Your task to perform on an android device: Open Google Maps Image 0: 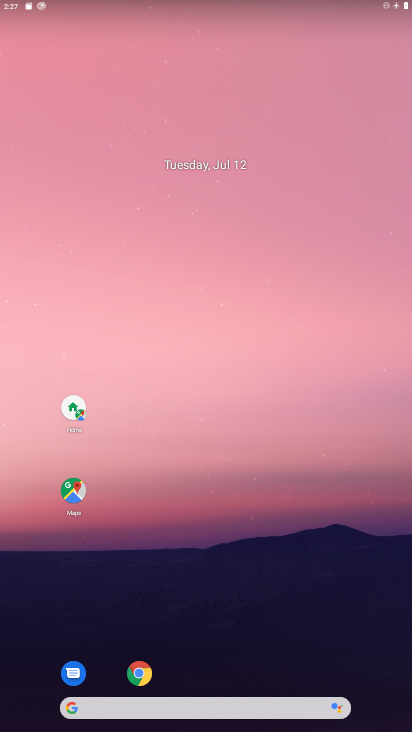
Step 0: click (60, 498)
Your task to perform on an android device: Open Google Maps Image 1: 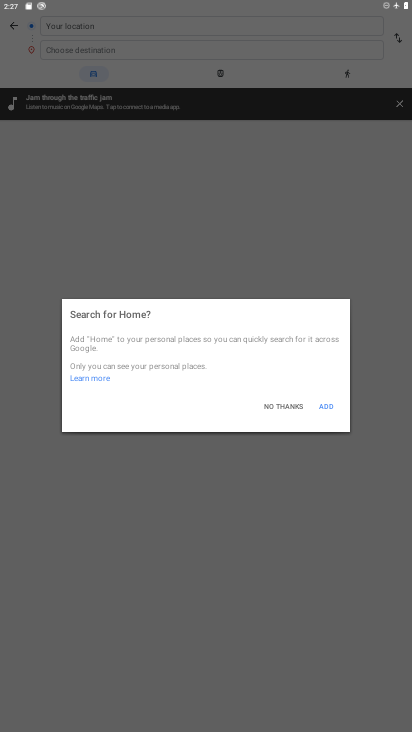
Step 1: press home button
Your task to perform on an android device: Open Google Maps Image 2: 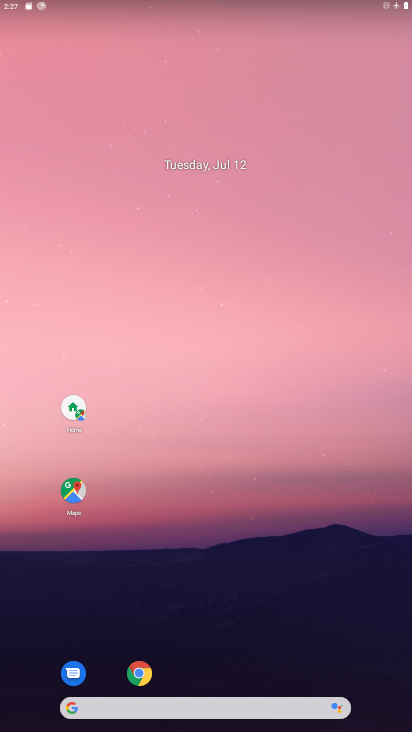
Step 2: drag from (235, 602) to (235, 233)
Your task to perform on an android device: Open Google Maps Image 3: 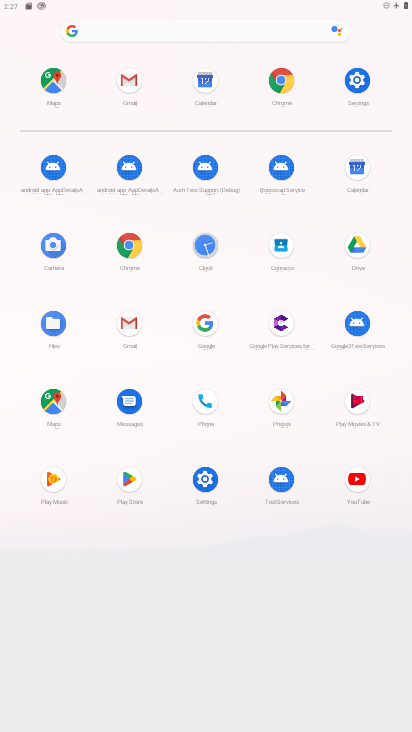
Step 3: click (47, 395)
Your task to perform on an android device: Open Google Maps Image 4: 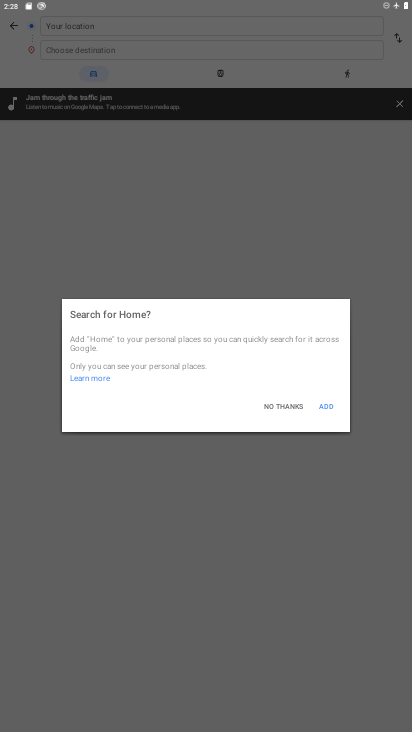
Step 4: task complete